Your task to perform on an android device: Install the Google app Image 0: 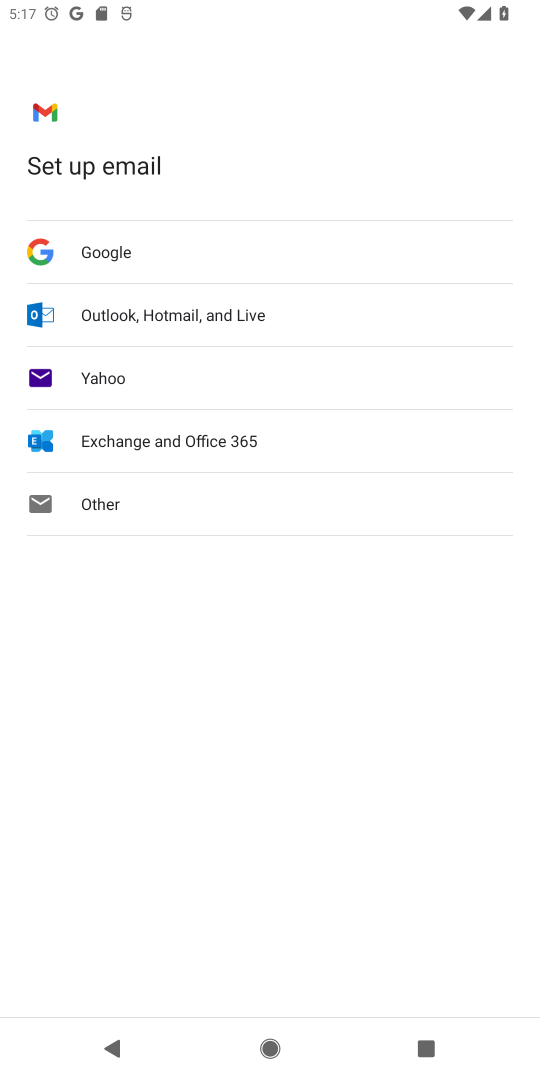
Step 0: press home button
Your task to perform on an android device: Install the Google app Image 1: 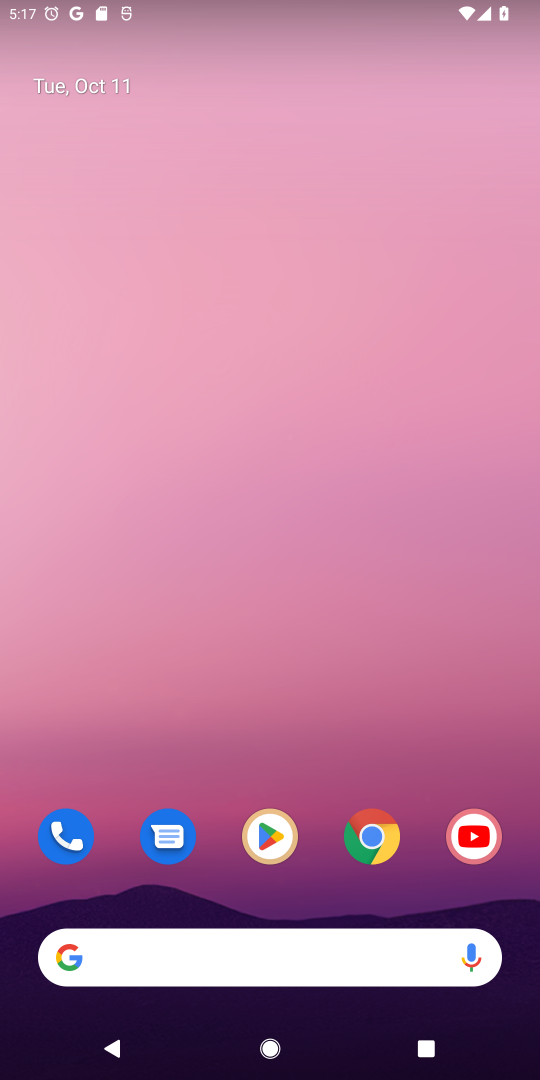
Step 1: task complete